Your task to perform on an android device: open app "Paramount+ | Peak Streaming" (install if not already installed) Image 0: 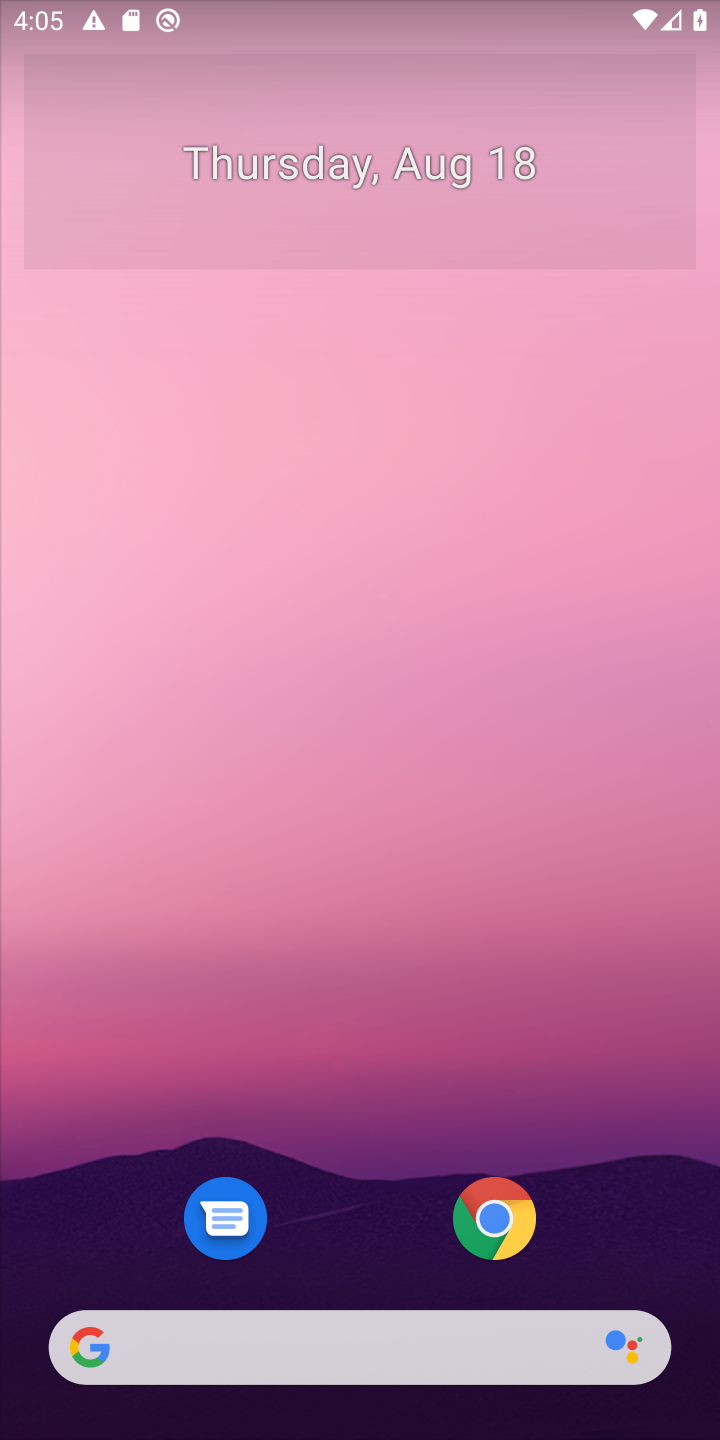
Step 0: drag from (356, 981) to (356, 216)
Your task to perform on an android device: open app "Paramount+ | Peak Streaming" (install if not already installed) Image 1: 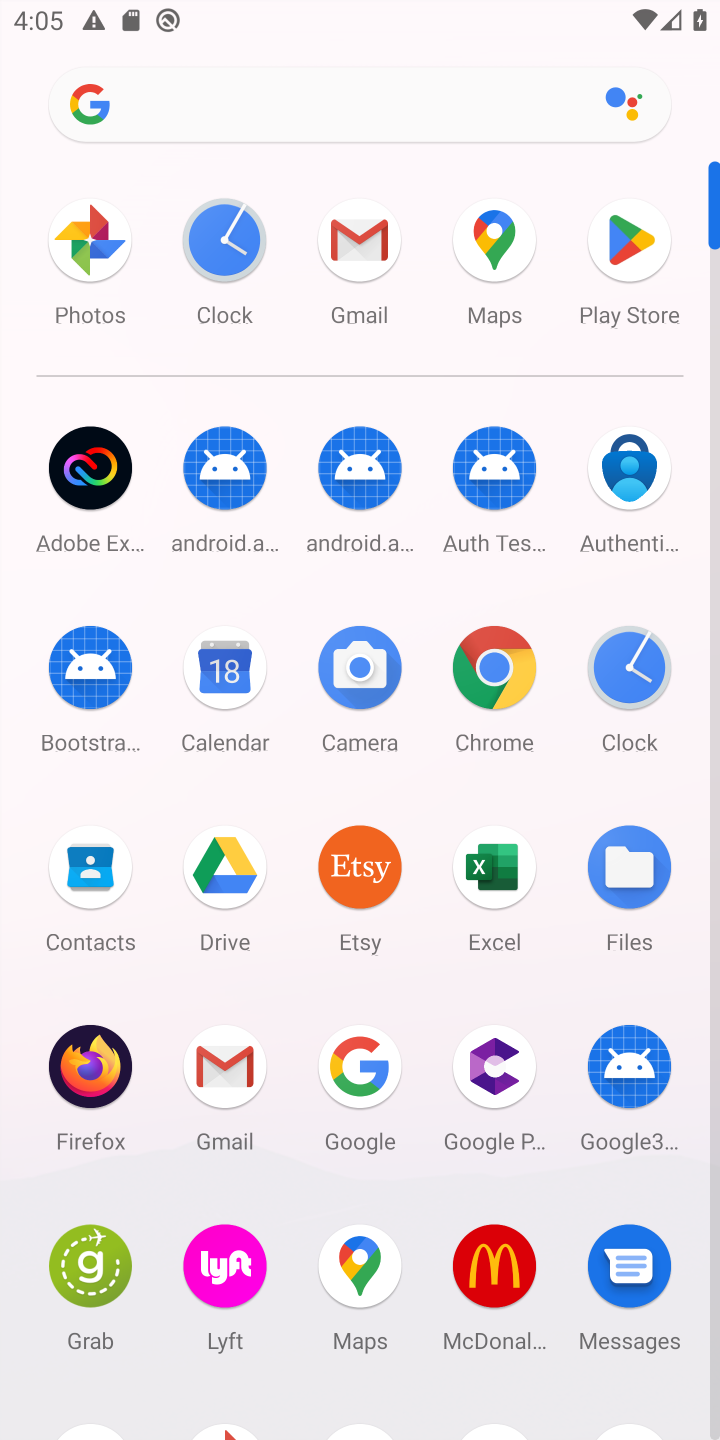
Step 1: click (607, 271)
Your task to perform on an android device: open app "Paramount+ | Peak Streaming" (install if not already installed) Image 2: 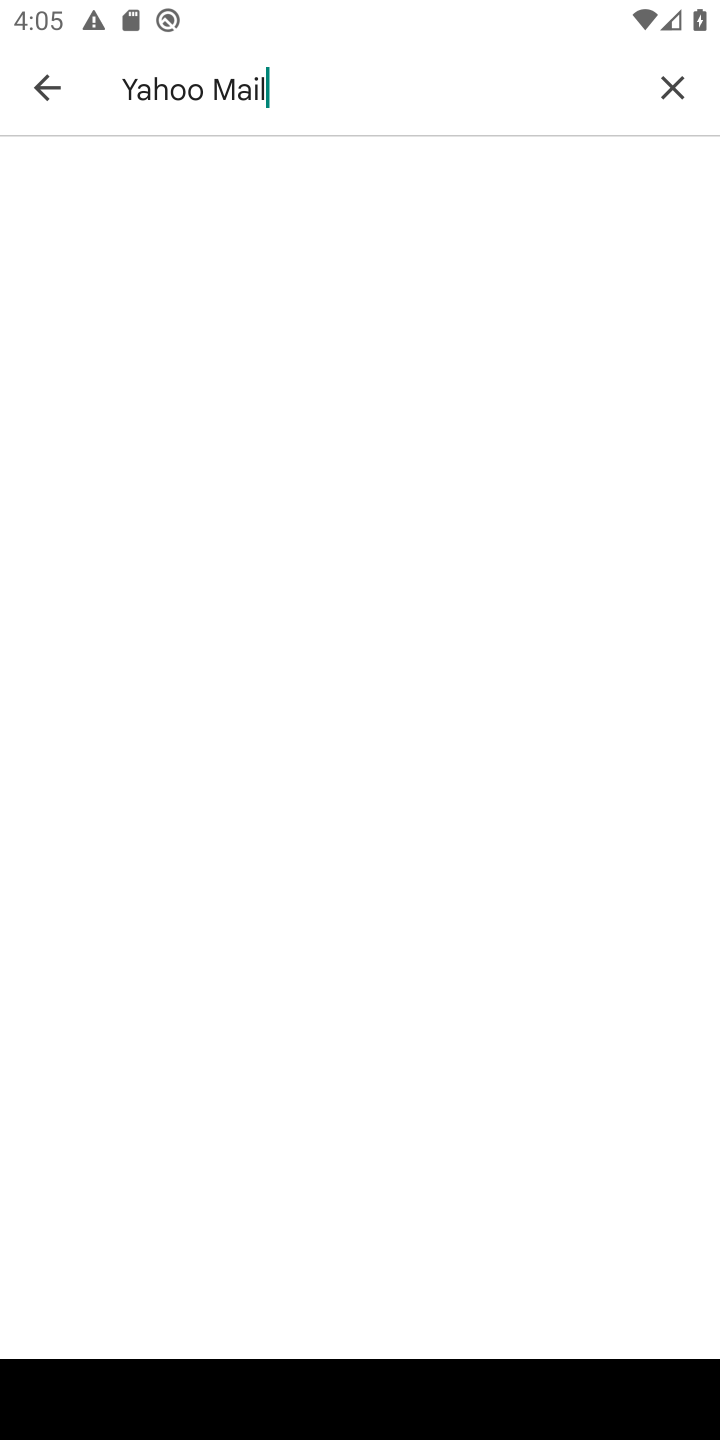
Step 2: click (678, 86)
Your task to perform on an android device: open app "Paramount+ | Peak Streaming" (install if not already installed) Image 3: 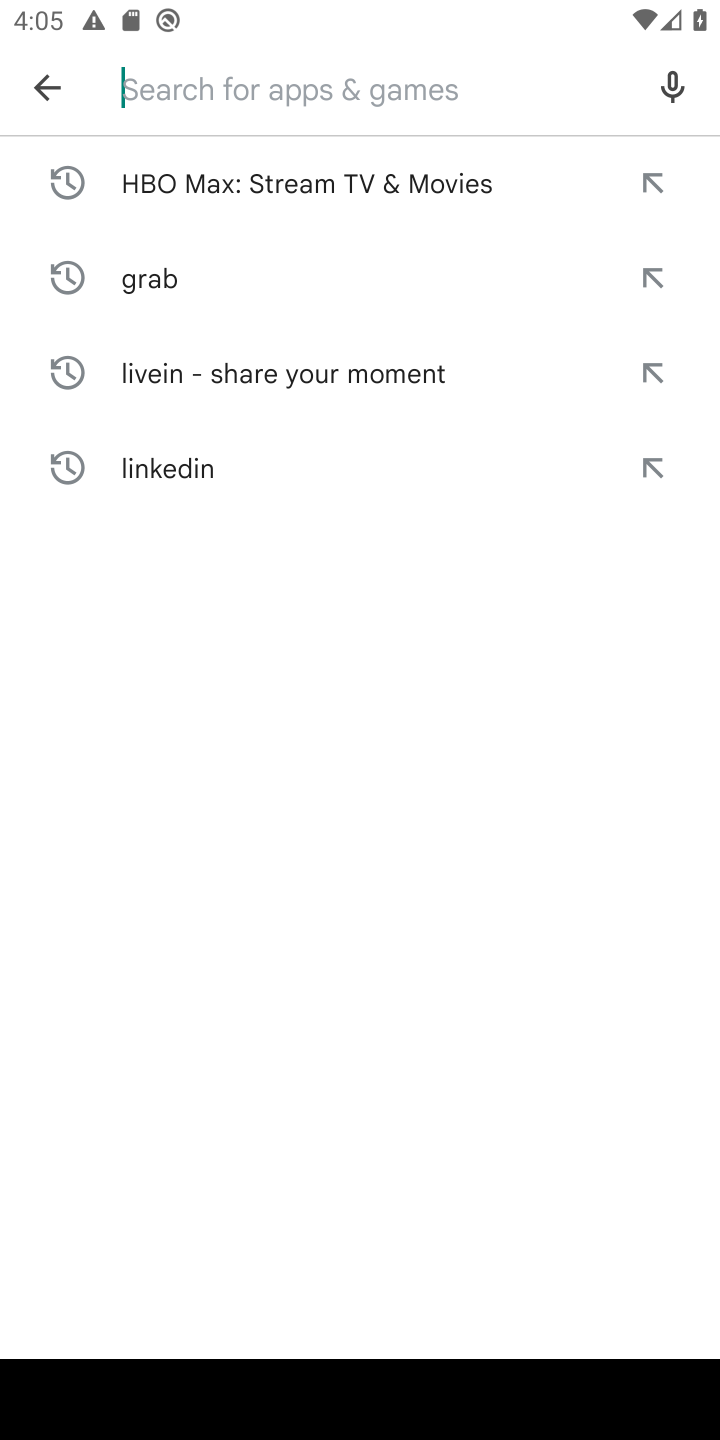
Step 3: type "Paramount+ | Peak Streaming"
Your task to perform on an android device: open app "Paramount+ | Peak Streaming" (install if not already installed) Image 4: 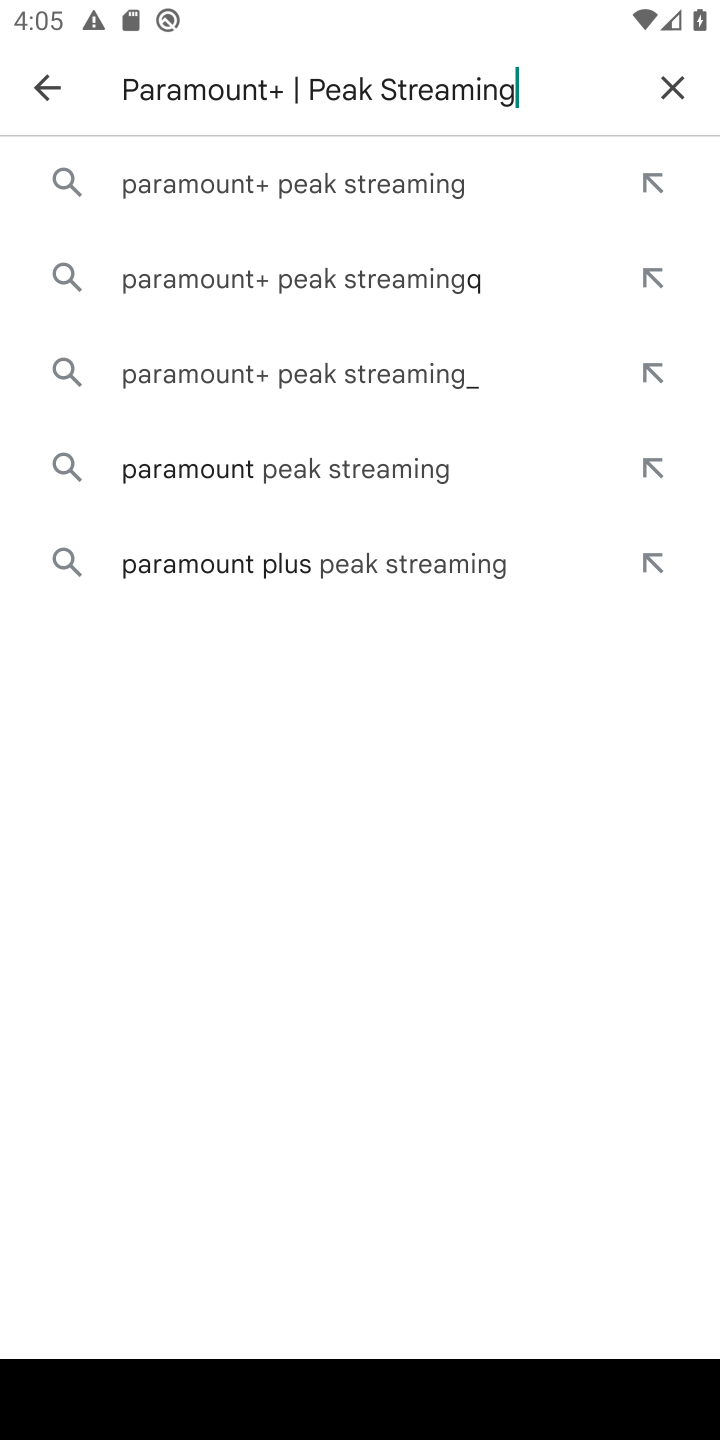
Step 4: click (399, 187)
Your task to perform on an android device: open app "Paramount+ | Peak Streaming" (install if not already installed) Image 5: 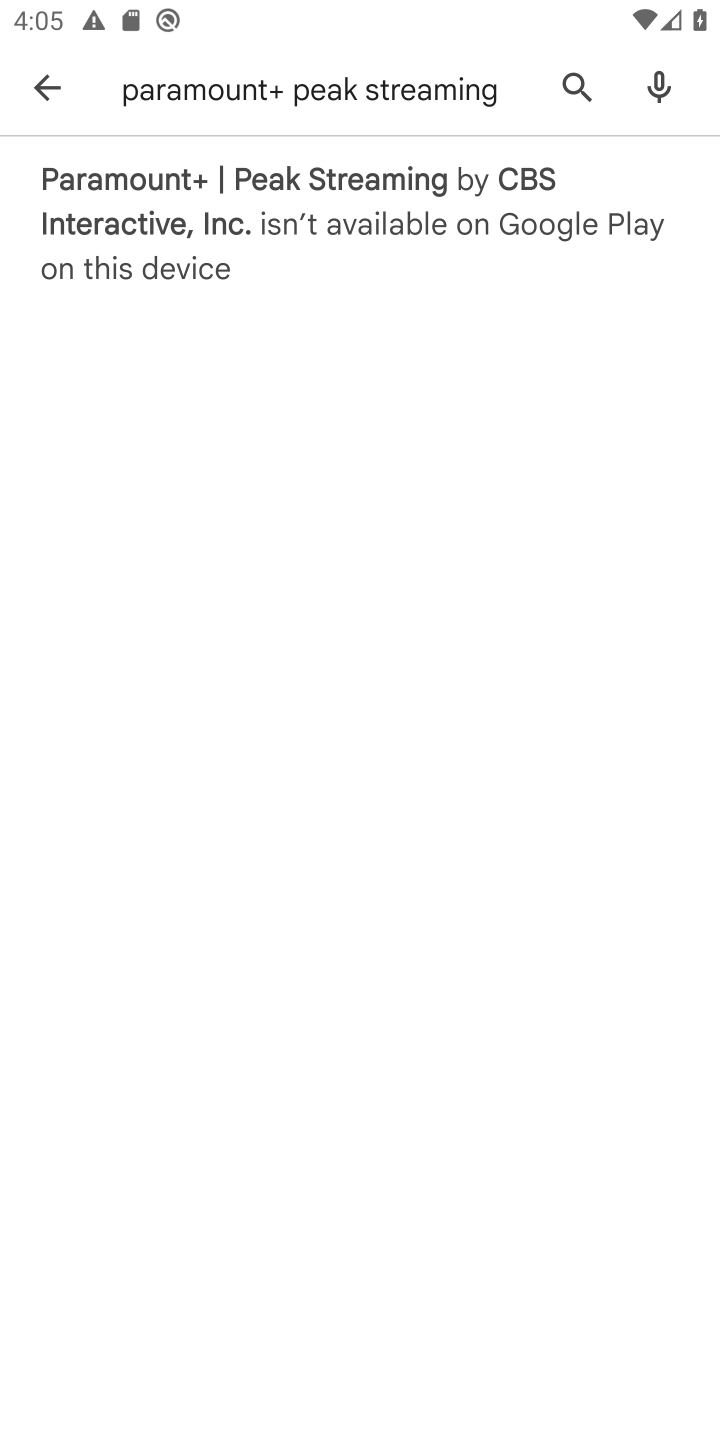
Step 5: click (215, 240)
Your task to perform on an android device: open app "Paramount+ | Peak Streaming" (install if not already installed) Image 6: 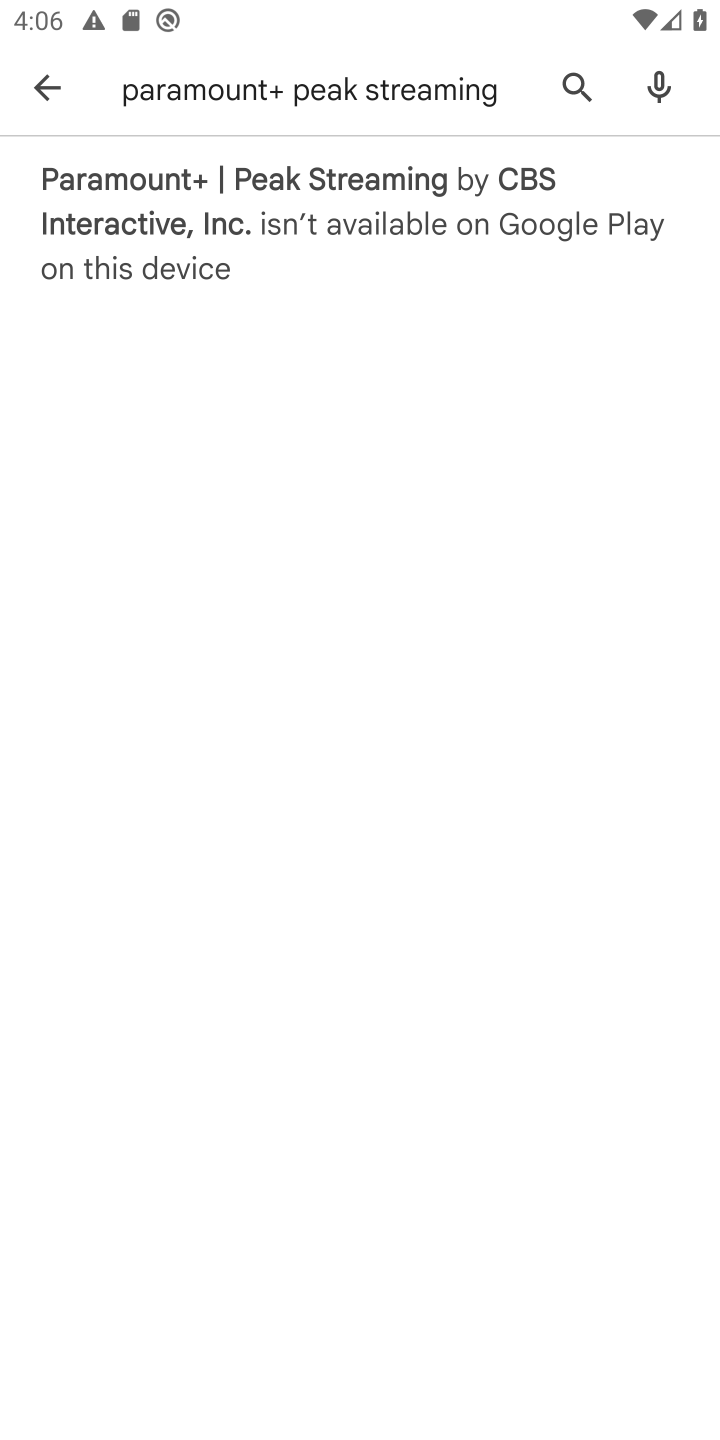
Step 6: click (138, 261)
Your task to perform on an android device: open app "Paramount+ | Peak Streaming" (install if not already installed) Image 7: 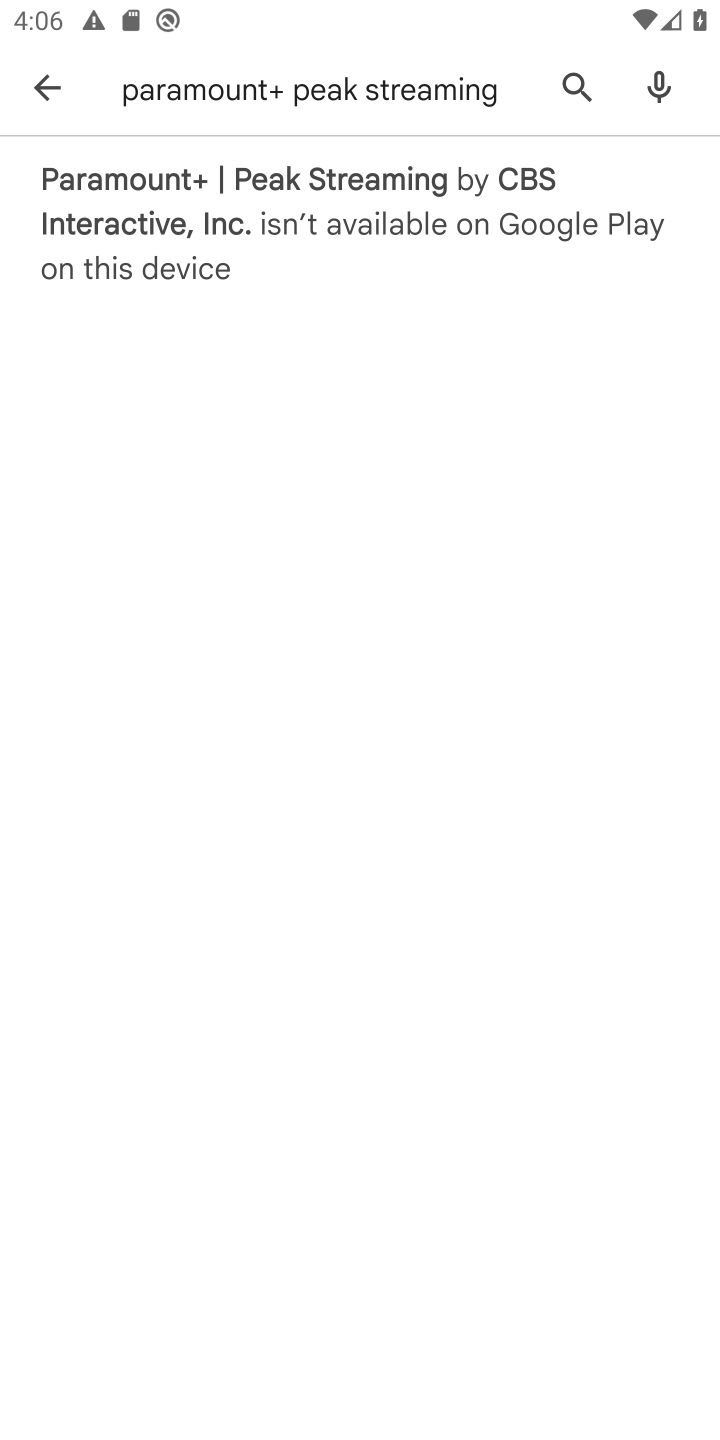
Step 7: click (153, 250)
Your task to perform on an android device: open app "Paramount+ | Peak Streaming" (install if not already installed) Image 8: 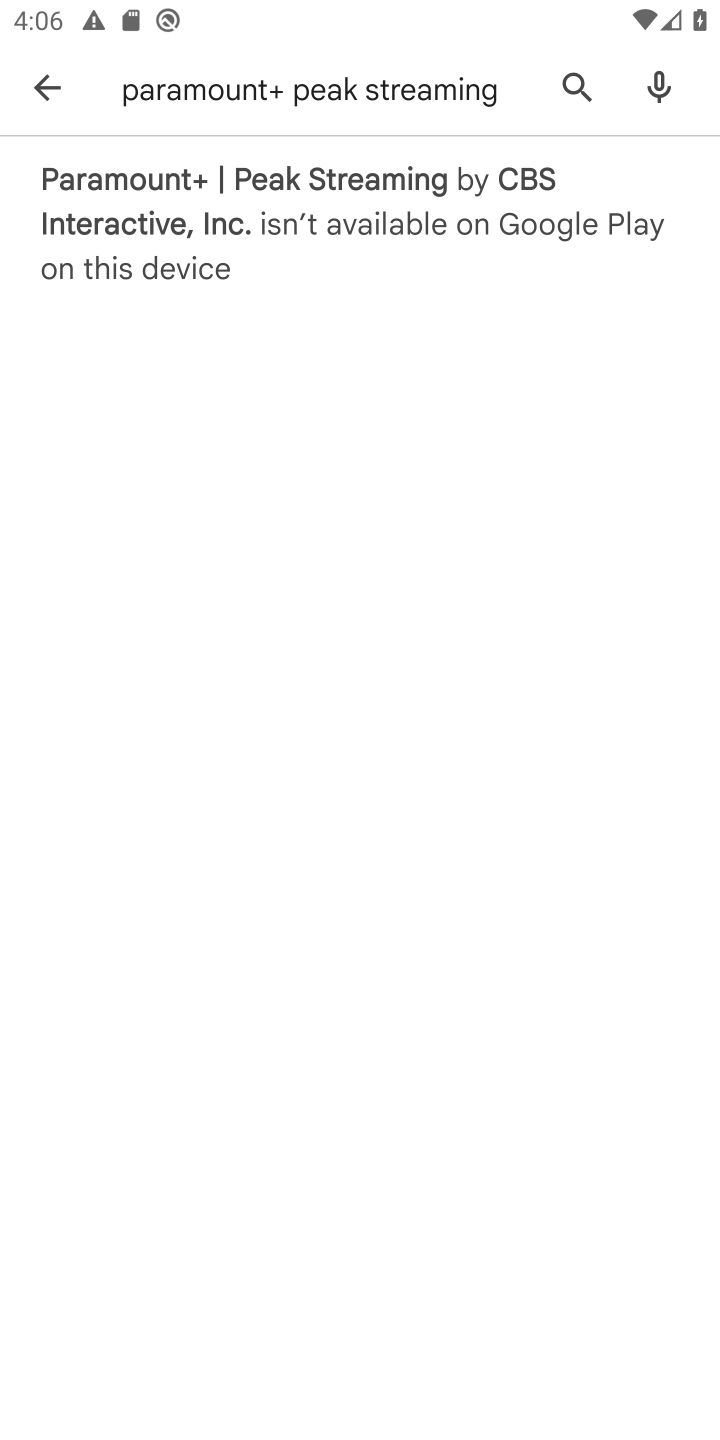
Step 8: task complete